Your task to perform on an android device: allow notifications from all sites in the chrome app Image 0: 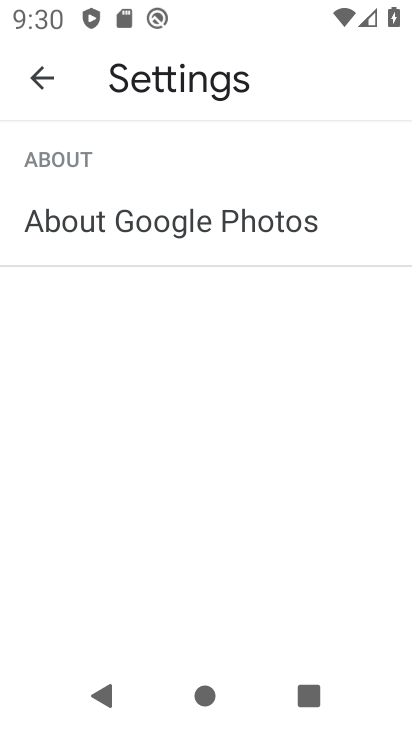
Step 0: press home button
Your task to perform on an android device: allow notifications from all sites in the chrome app Image 1: 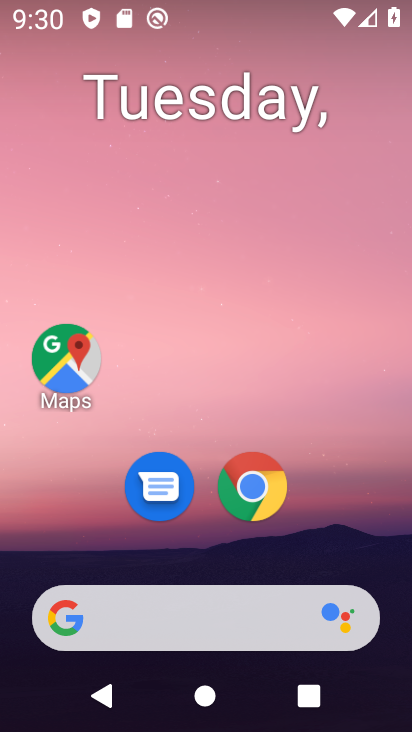
Step 1: drag from (363, 538) to (369, 221)
Your task to perform on an android device: allow notifications from all sites in the chrome app Image 2: 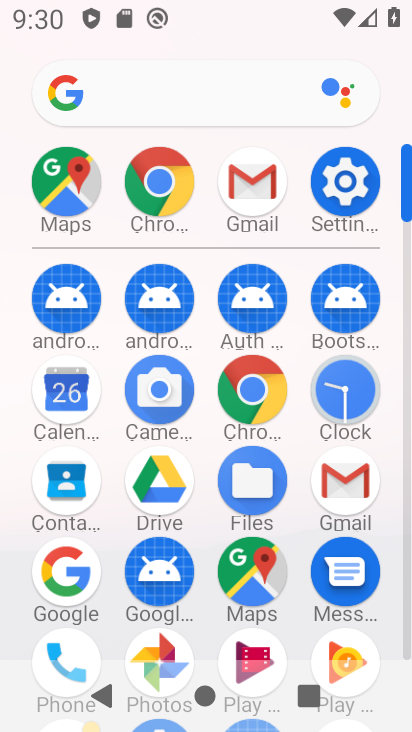
Step 2: click (261, 393)
Your task to perform on an android device: allow notifications from all sites in the chrome app Image 3: 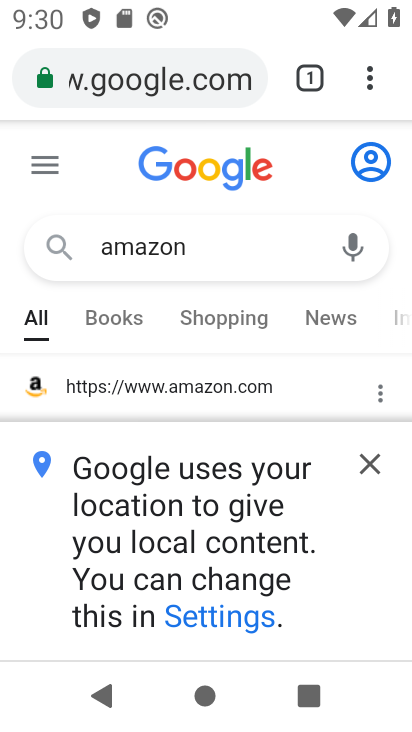
Step 3: click (365, 77)
Your task to perform on an android device: allow notifications from all sites in the chrome app Image 4: 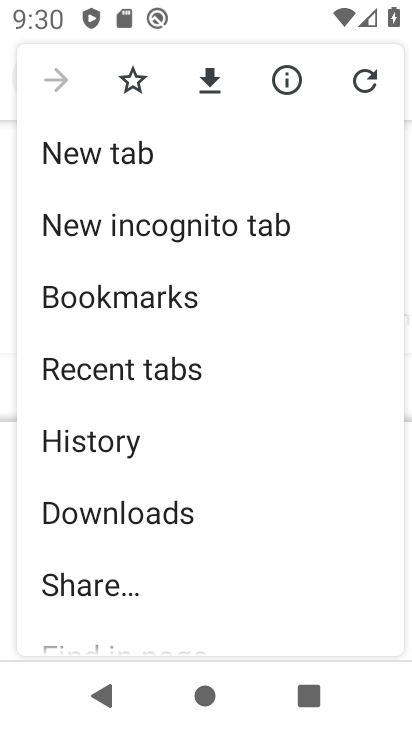
Step 4: drag from (317, 514) to (323, 448)
Your task to perform on an android device: allow notifications from all sites in the chrome app Image 5: 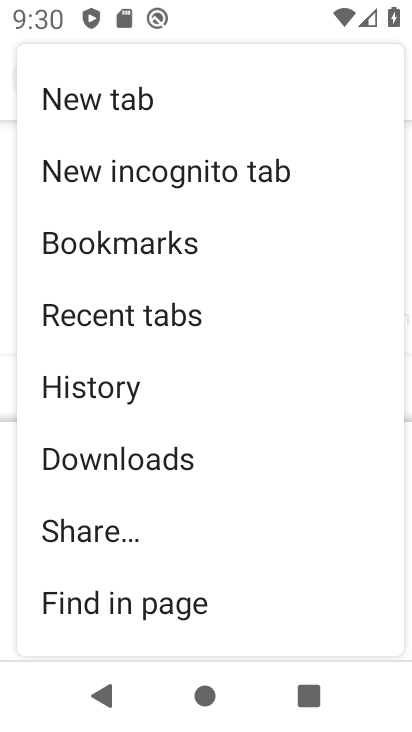
Step 5: drag from (307, 546) to (311, 471)
Your task to perform on an android device: allow notifications from all sites in the chrome app Image 6: 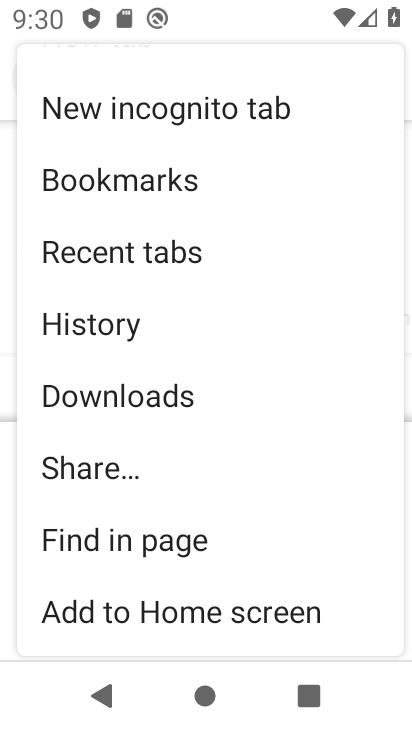
Step 6: drag from (296, 541) to (295, 431)
Your task to perform on an android device: allow notifications from all sites in the chrome app Image 7: 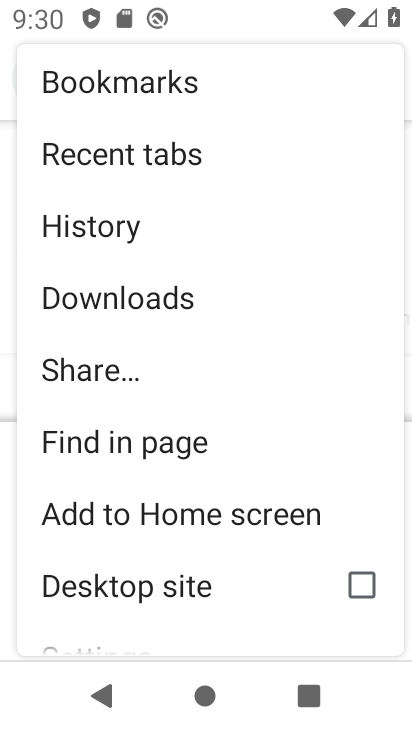
Step 7: drag from (267, 552) to (271, 387)
Your task to perform on an android device: allow notifications from all sites in the chrome app Image 8: 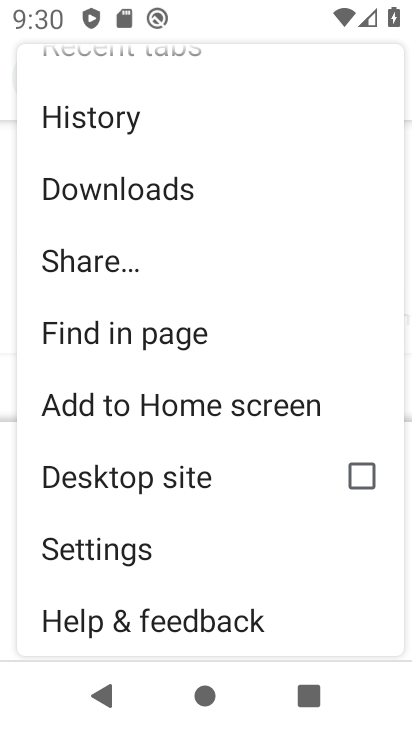
Step 8: click (223, 554)
Your task to perform on an android device: allow notifications from all sites in the chrome app Image 9: 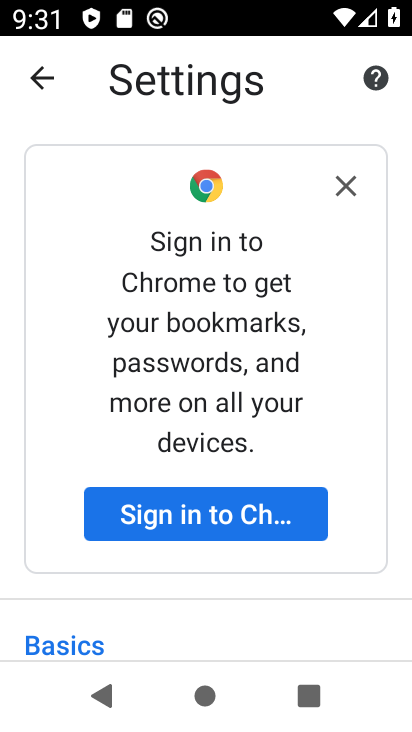
Step 9: click (353, 187)
Your task to perform on an android device: allow notifications from all sites in the chrome app Image 10: 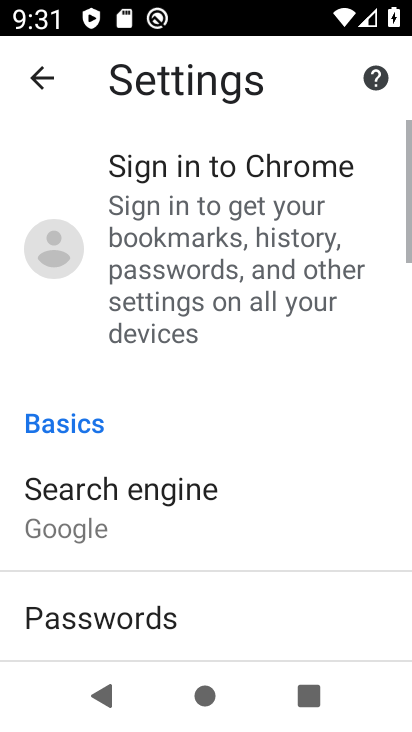
Step 10: drag from (322, 462) to (326, 389)
Your task to perform on an android device: allow notifications from all sites in the chrome app Image 11: 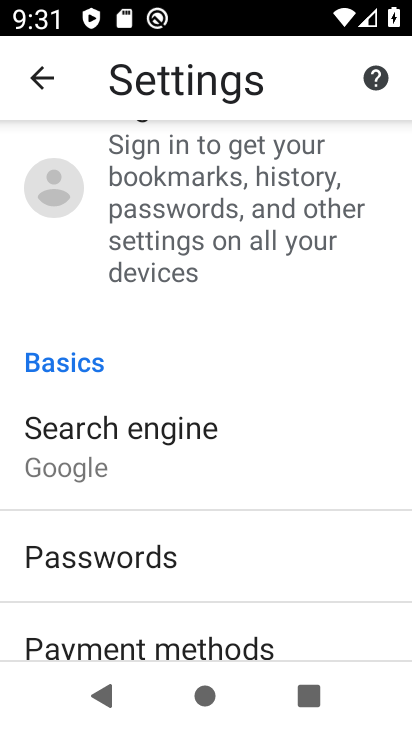
Step 11: drag from (326, 494) to (326, 412)
Your task to perform on an android device: allow notifications from all sites in the chrome app Image 12: 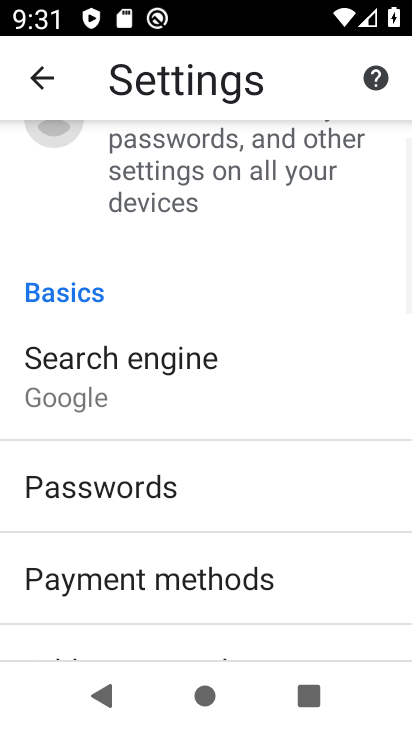
Step 12: drag from (313, 495) to (316, 418)
Your task to perform on an android device: allow notifications from all sites in the chrome app Image 13: 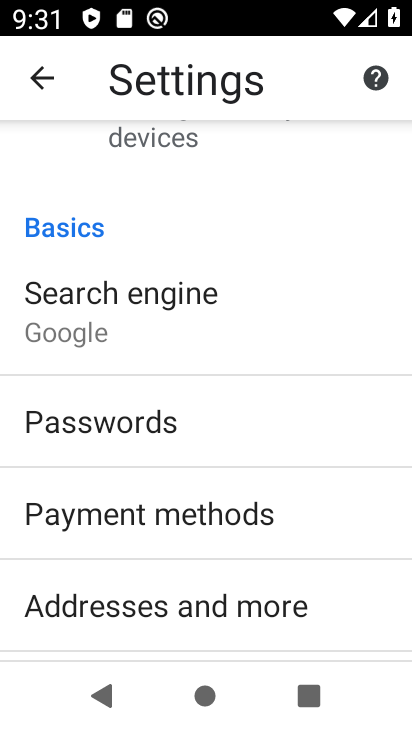
Step 13: click (317, 475)
Your task to perform on an android device: allow notifications from all sites in the chrome app Image 14: 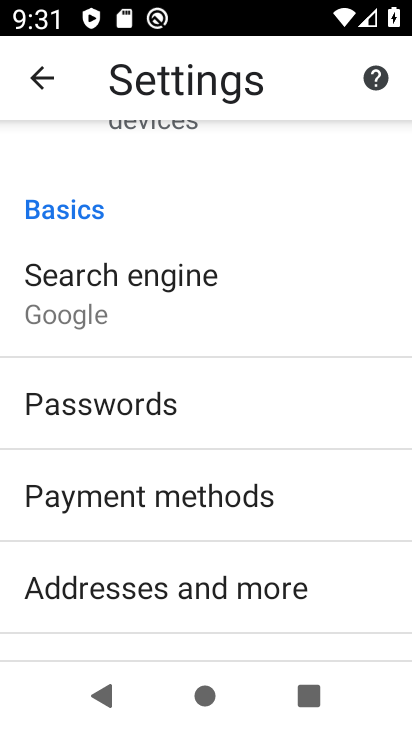
Step 14: drag from (319, 509) to (313, 420)
Your task to perform on an android device: allow notifications from all sites in the chrome app Image 15: 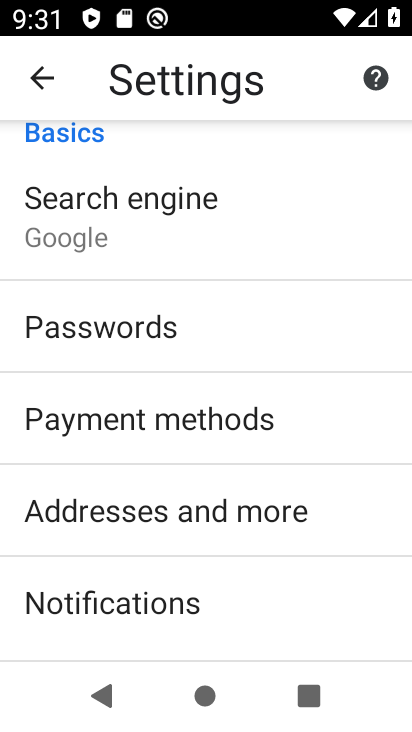
Step 15: click (313, 476)
Your task to perform on an android device: allow notifications from all sites in the chrome app Image 16: 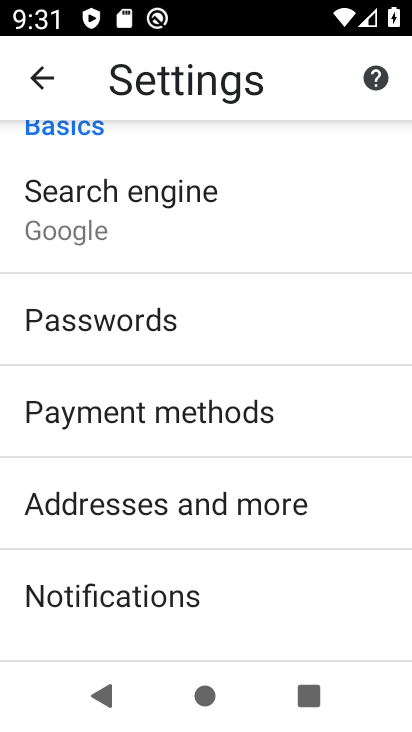
Step 16: click (309, 503)
Your task to perform on an android device: allow notifications from all sites in the chrome app Image 17: 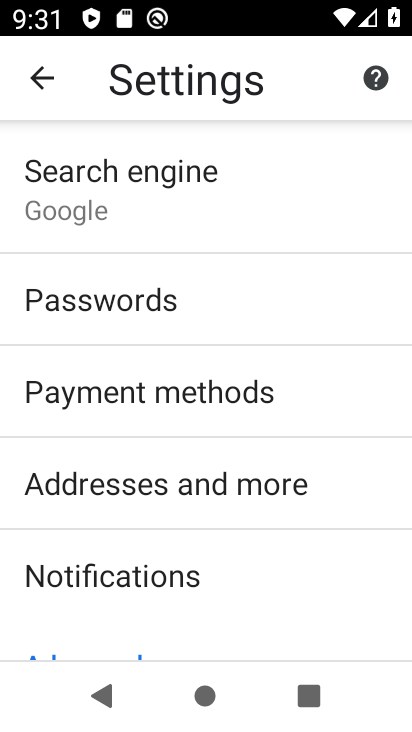
Step 17: drag from (293, 511) to (297, 477)
Your task to perform on an android device: allow notifications from all sites in the chrome app Image 18: 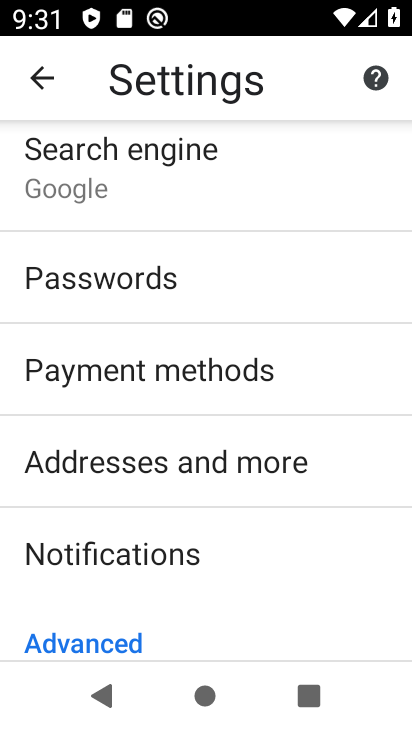
Step 18: click (296, 536)
Your task to perform on an android device: allow notifications from all sites in the chrome app Image 19: 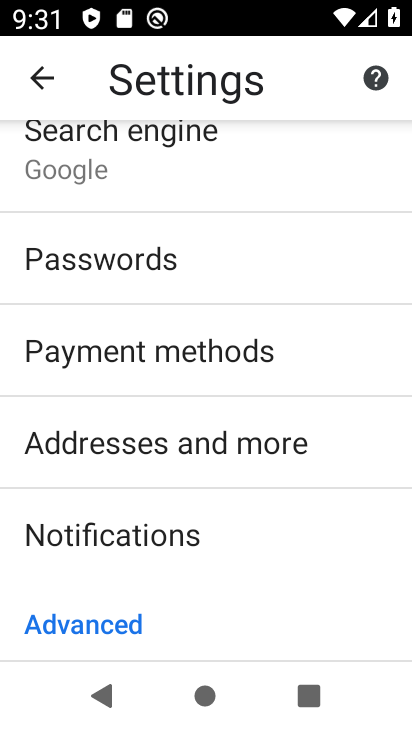
Step 19: click (299, 546)
Your task to perform on an android device: allow notifications from all sites in the chrome app Image 20: 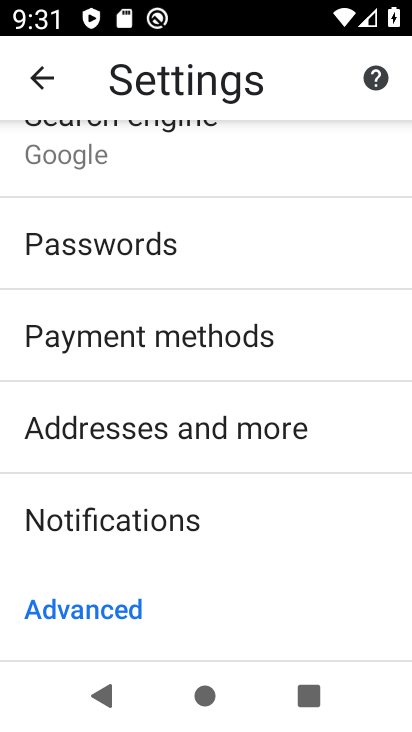
Step 20: click (300, 550)
Your task to perform on an android device: allow notifications from all sites in the chrome app Image 21: 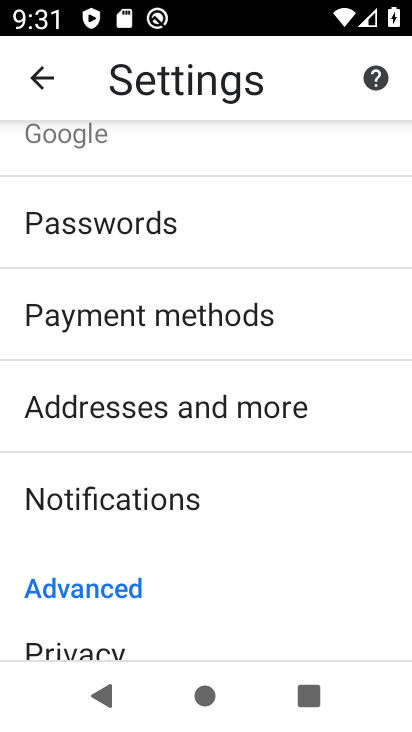
Step 21: drag from (311, 541) to (314, 448)
Your task to perform on an android device: allow notifications from all sites in the chrome app Image 22: 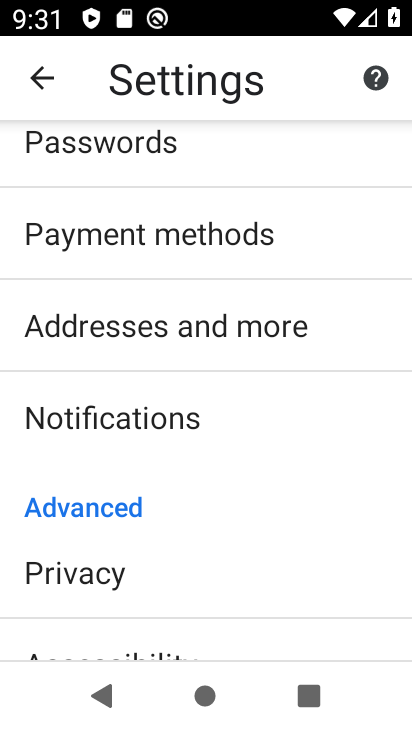
Step 22: drag from (272, 529) to (277, 403)
Your task to perform on an android device: allow notifications from all sites in the chrome app Image 23: 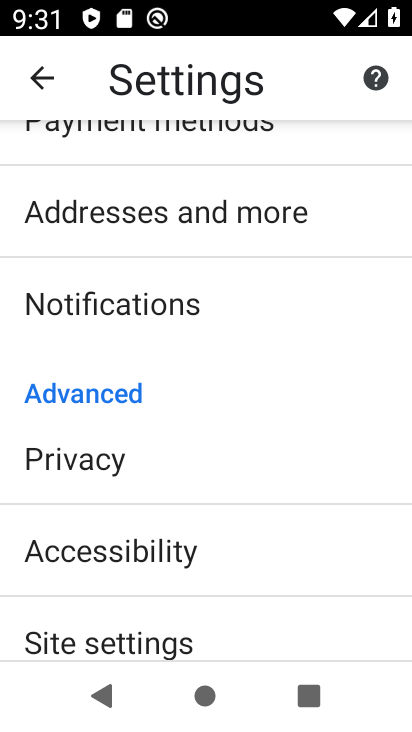
Step 23: drag from (328, 509) to (330, 437)
Your task to perform on an android device: allow notifications from all sites in the chrome app Image 24: 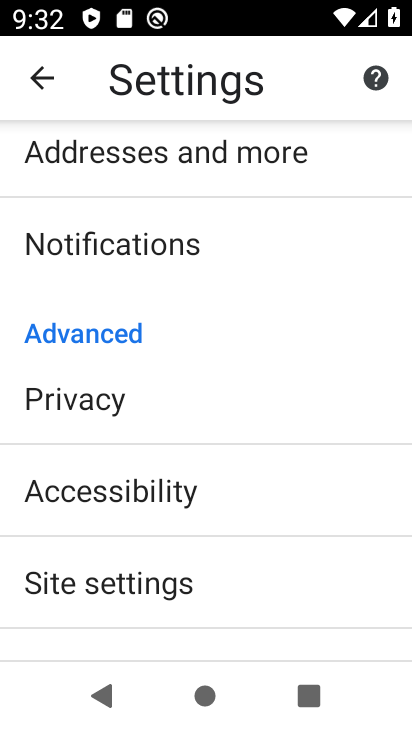
Step 24: click (316, 551)
Your task to perform on an android device: allow notifications from all sites in the chrome app Image 25: 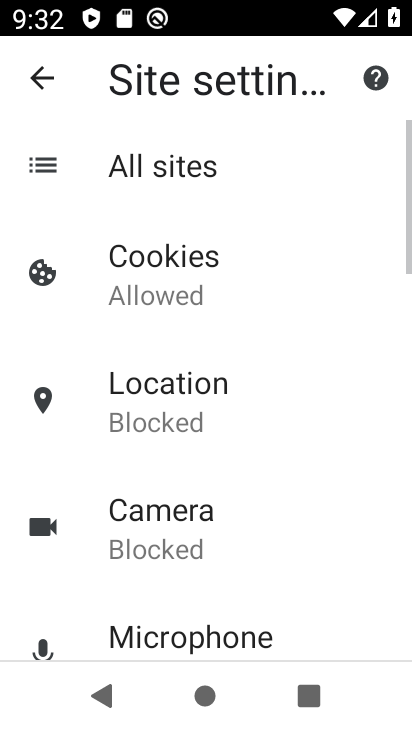
Step 25: drag from (316, 551) to (319, 507)
Your task to perform on an android device: allow notifications from all sites in the chrome app Image 26: 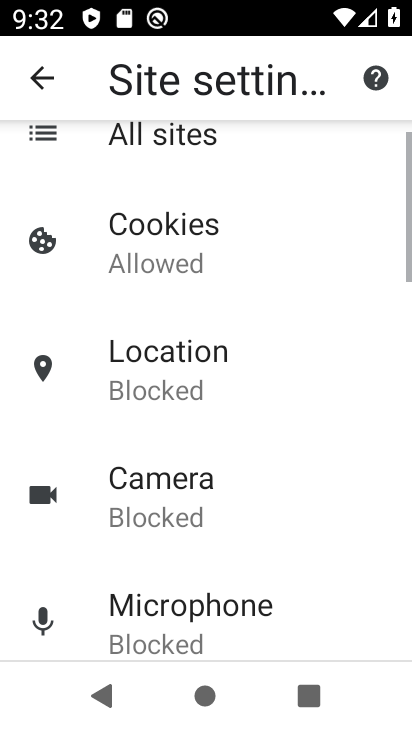
Step 26: drag from (318, 548) to (322, 486)
Your task to perform on an android device: allow notifications from all sites in the chrome app Image 27: 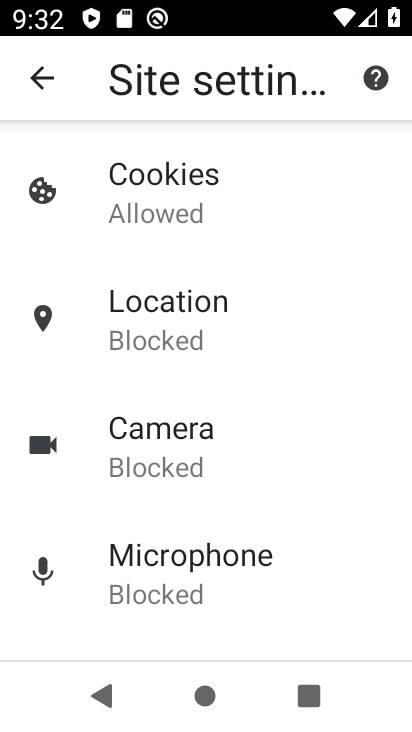
Step 27: drag from (307, 512) to (292, 319)
Your task to perform on an android device: allow notifications from all sites in the chrome app Image 28: 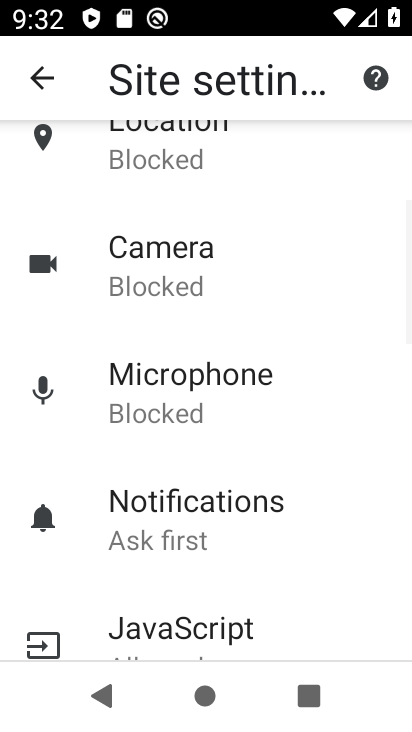
Step 28: click (257, 521)
Your task to perform on an android device: allow notifications from all sites in the chrome app Image 29: 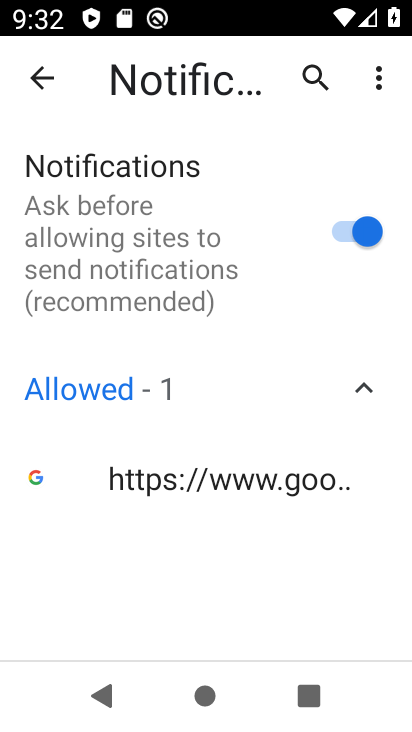
Step 29: task complete